Your task to perform on an android device: remove spam from my inbox in the gmail app Image 0: 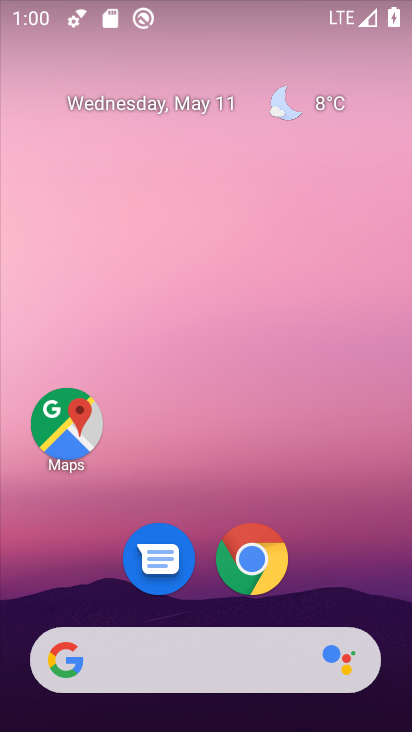
Step 0: drag from (212, 724) to (163, 229)
Your task to perform on an android device: remove spam from my inbox in the gmail app Image 1: 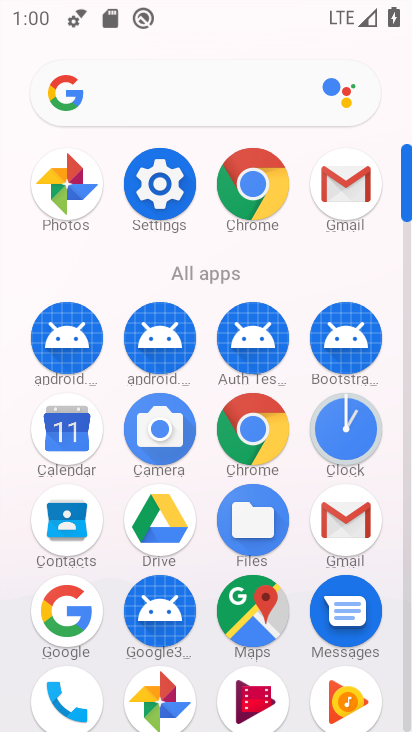
Step 1: click (350, 184)
Your task to perform on an android device: remove spam from my inbox in the gmail app Image 2: 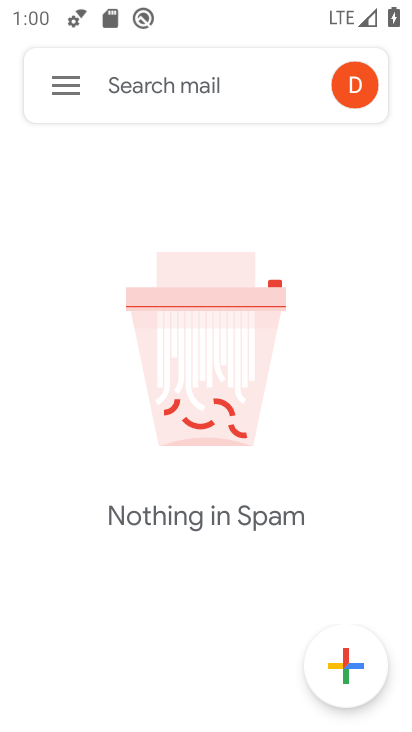
Step 2: click (73, 76)
Your task to perform on an android device: remove spam from my inbox in the gmail app Image 3: 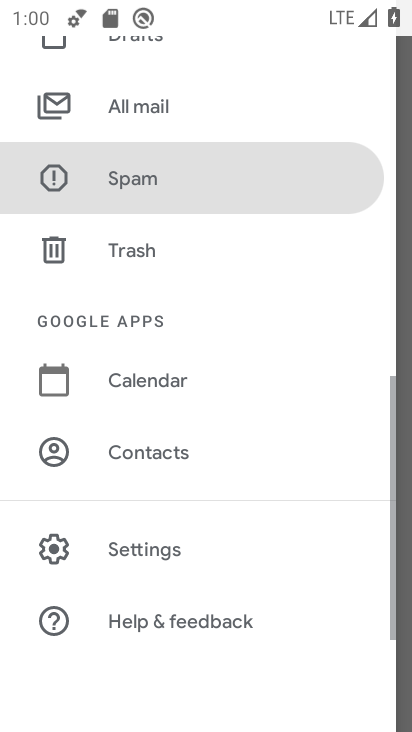
Step 3: drag from (184, 162) to (270, 662)
Your task to perform on an android device: remove spam from my inbox in the gmail app Image 4: 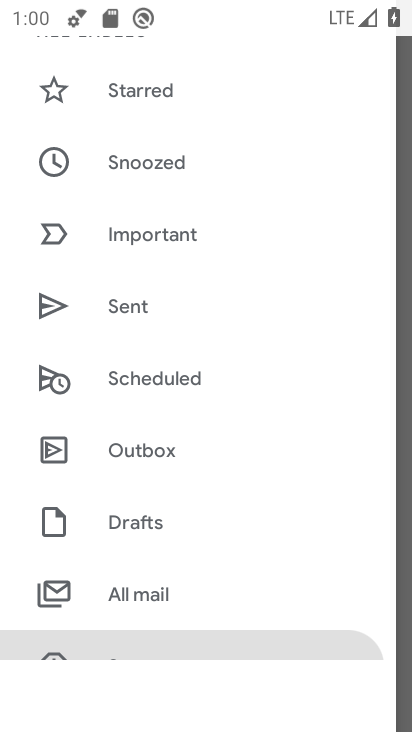
Step 4: drag from (162, 167) to (230, 590)
Your task to perform on an android device: remove spam from my inbox in the gmail app Image 5: 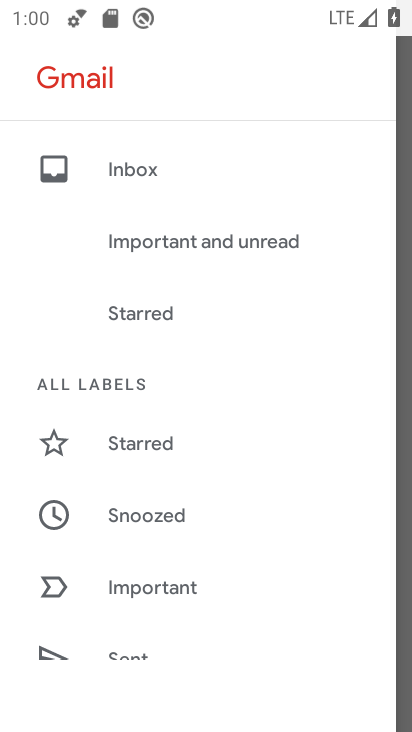
Step 5: click (132, 163)
Your task to perform on an android device: remove spam from my inbox in the gmail app Image 6: 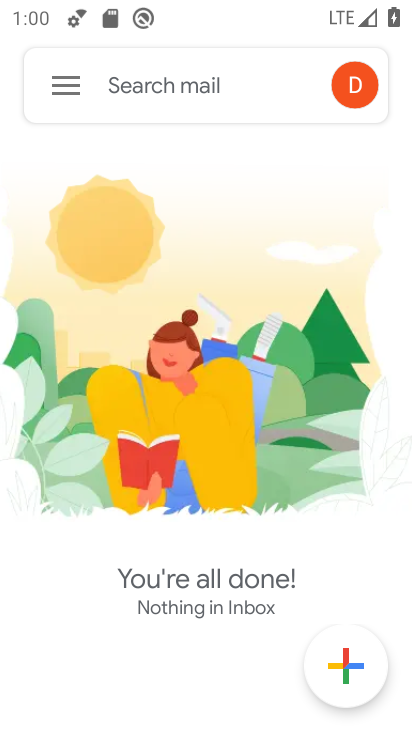
Step 6: task complete